Your task to perform on an android device: Open accessibility settings Image 0: 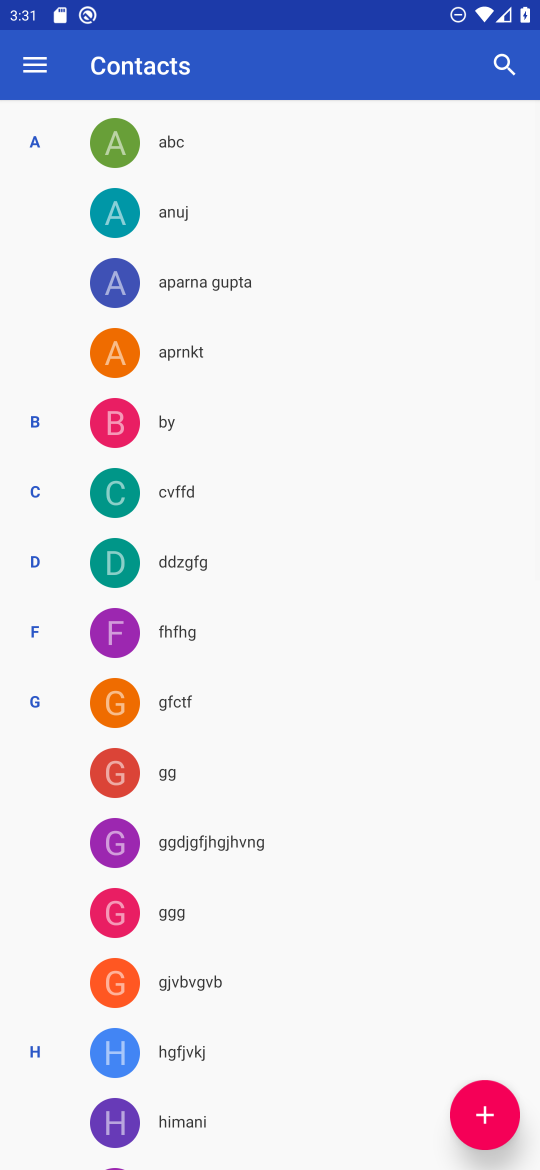
Step 0: press home button
Your task to perform on an android device: Open accessibility settings Image 1: 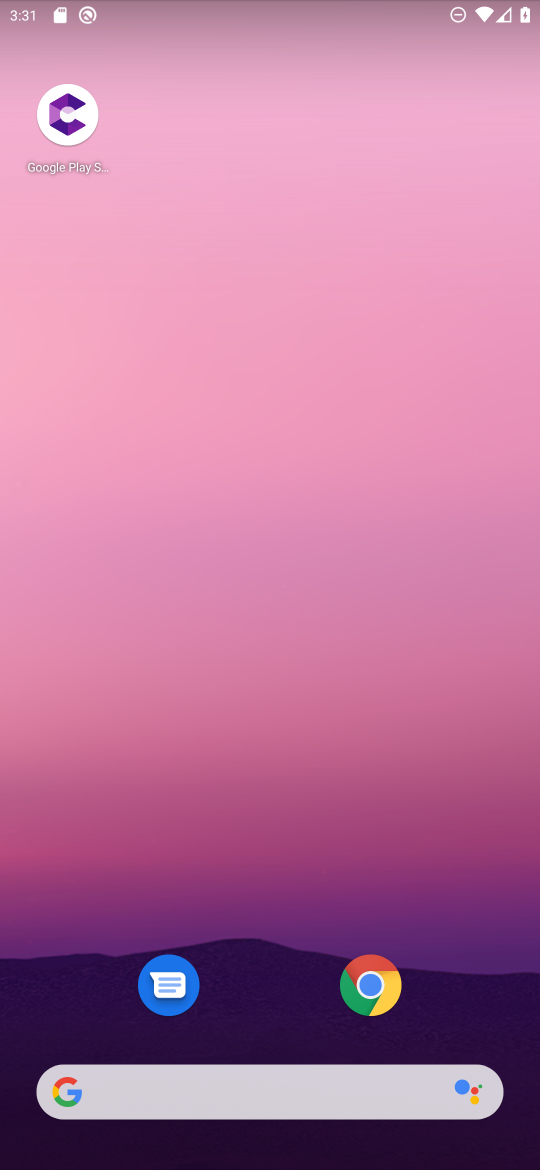
Step 1: drag from (263, 993) to (257, 7)
Your task to perform on an android device: Open accessibility settings Image 2: 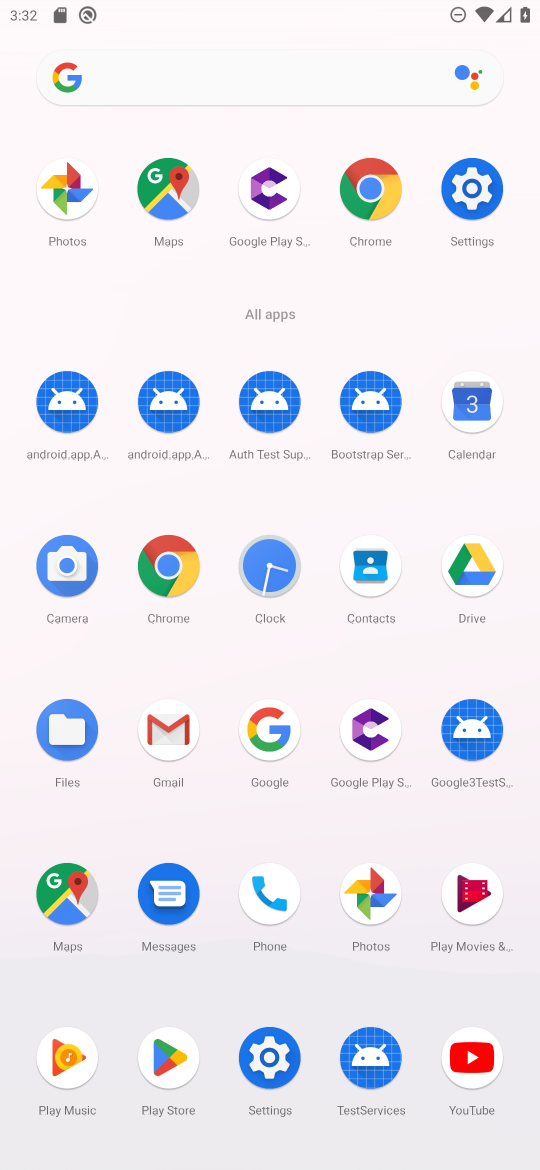
Step 2: click (256, 1061)
Your task to perform on an android device: Open accessibility settings Image 3: 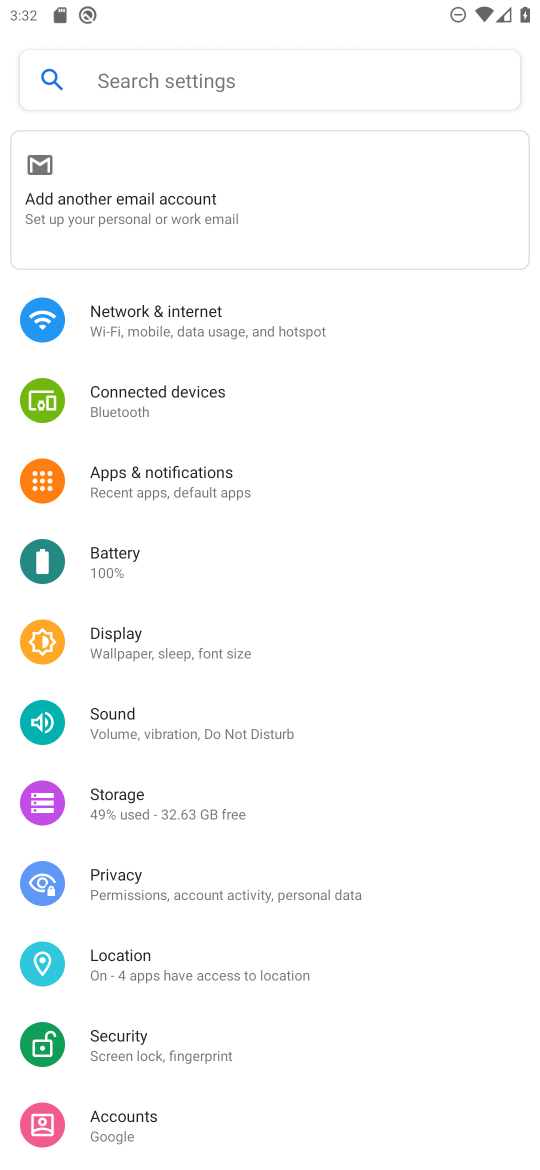
Step 3: drag from (206, 1071) to (208, 499)
Your task to perform on an android device: Open accessibility settings Image 4: 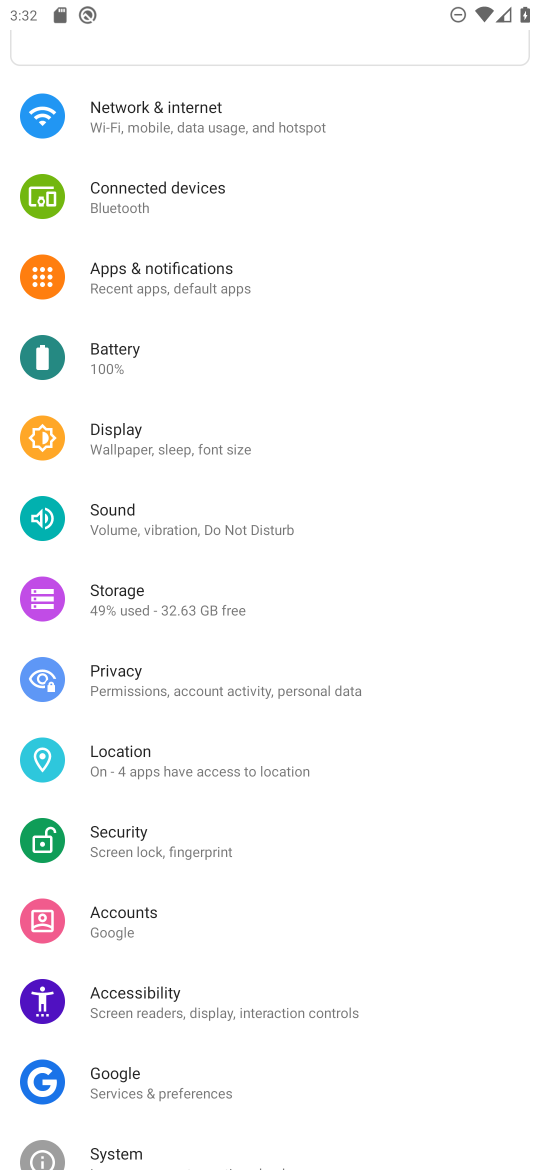
Step 4: click (128, 1008)
Your task to perform on an android device: Open accessibility settings Image 5: 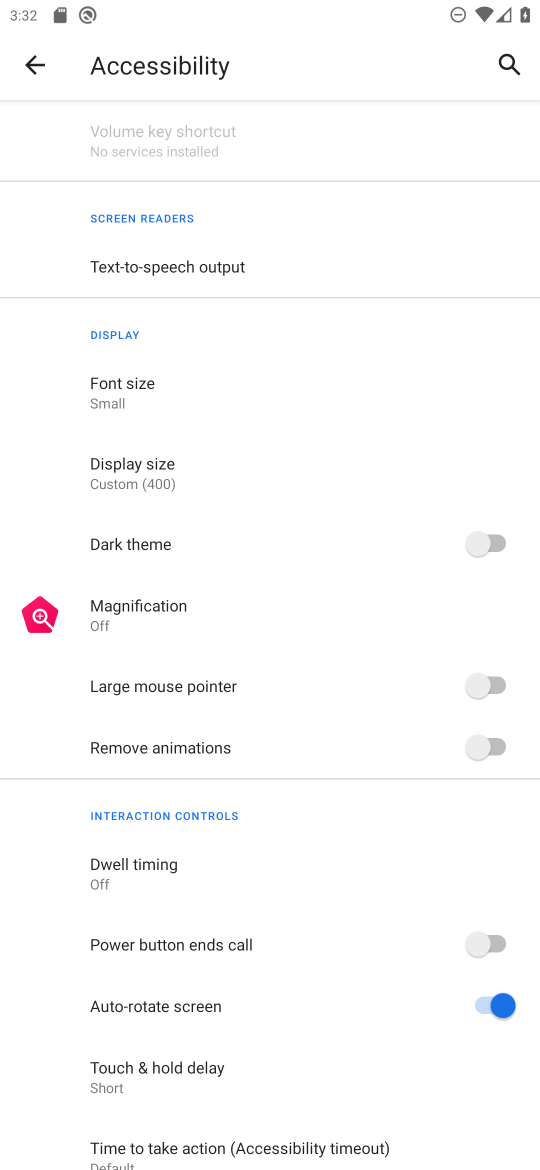
Step 5: task complete